Your task to perform on an android device: uninstall "Clock" Image 0: 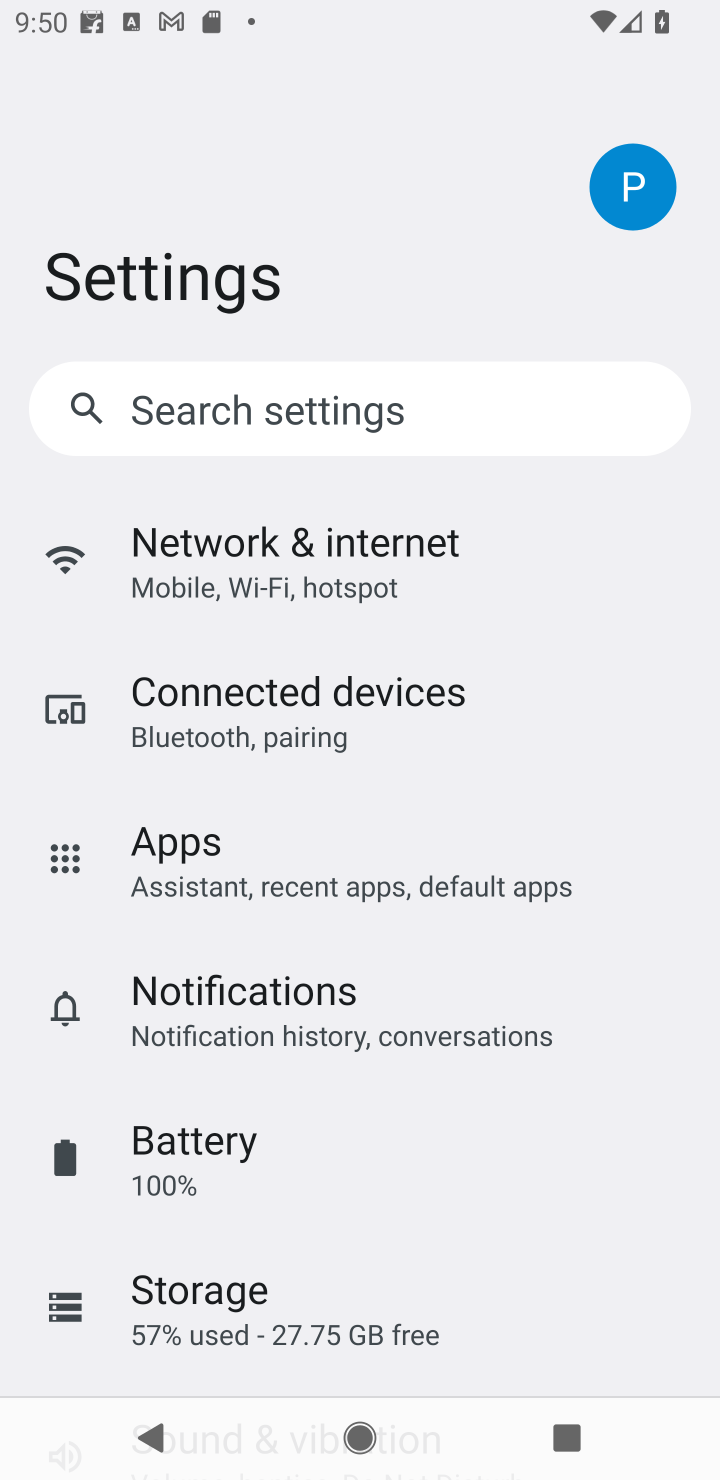
Step 0: press home button
Your task to perform on an android device: uninstall "Clock" Image 1: 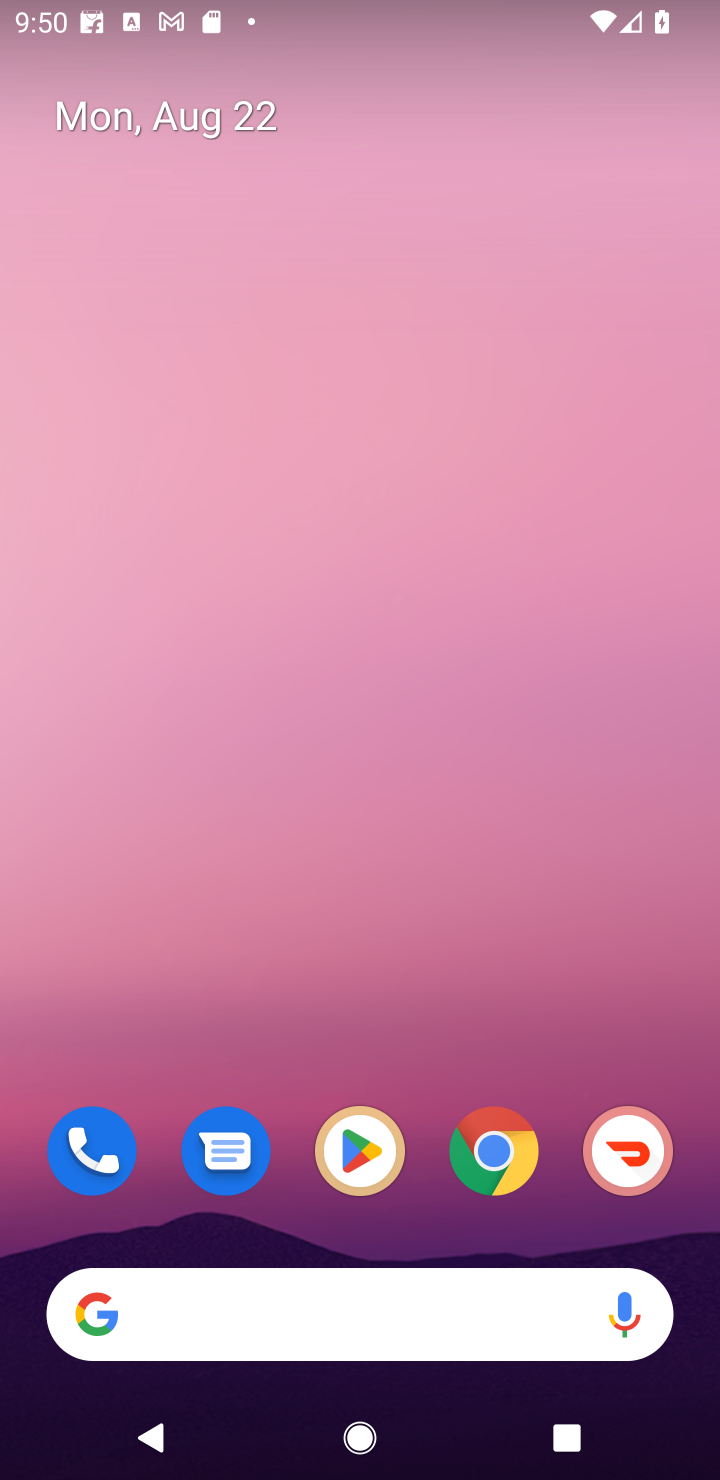
Step 1: click (347, 1143)
Your task to perform on an android device: uninstall "Clock" Image 2: 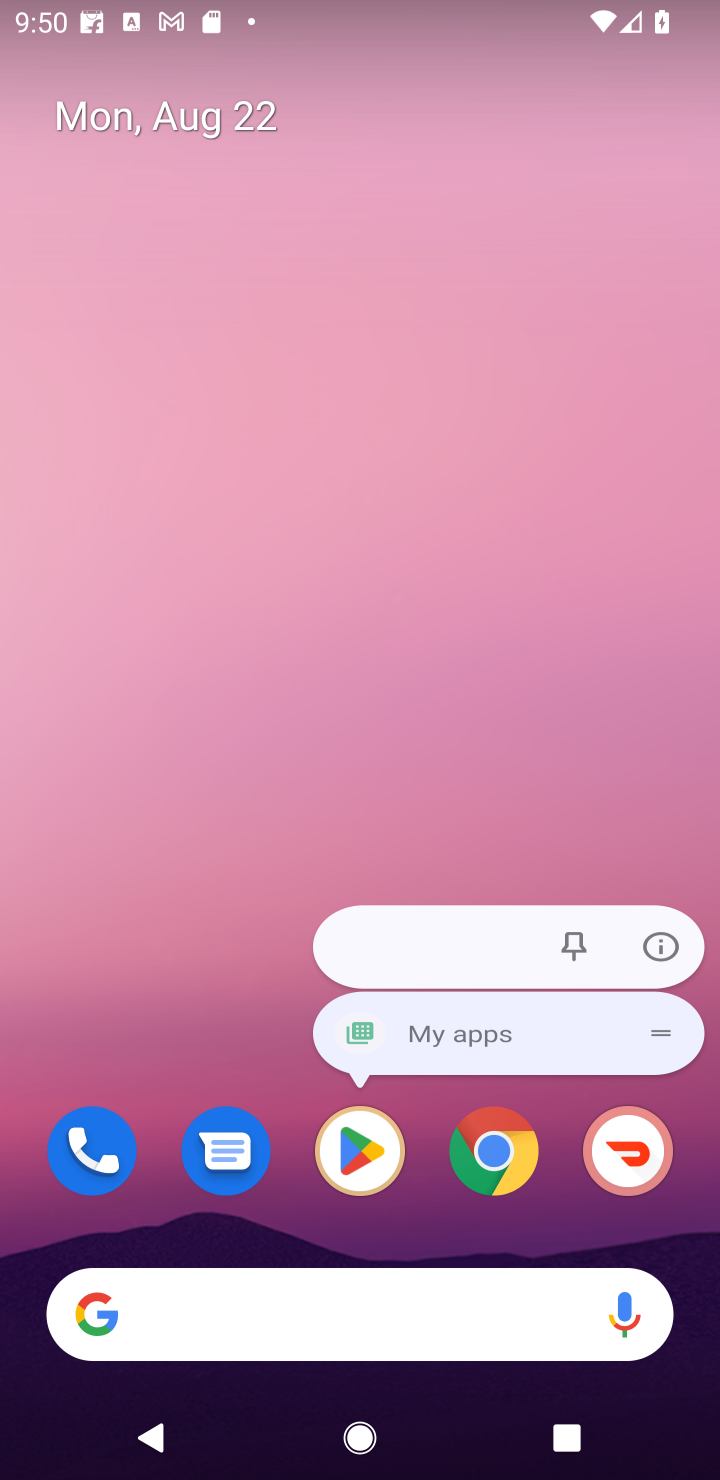
Step 2: click (347, 1145)
Your task to perform on an android device: uninstall "Clock" Image 3: 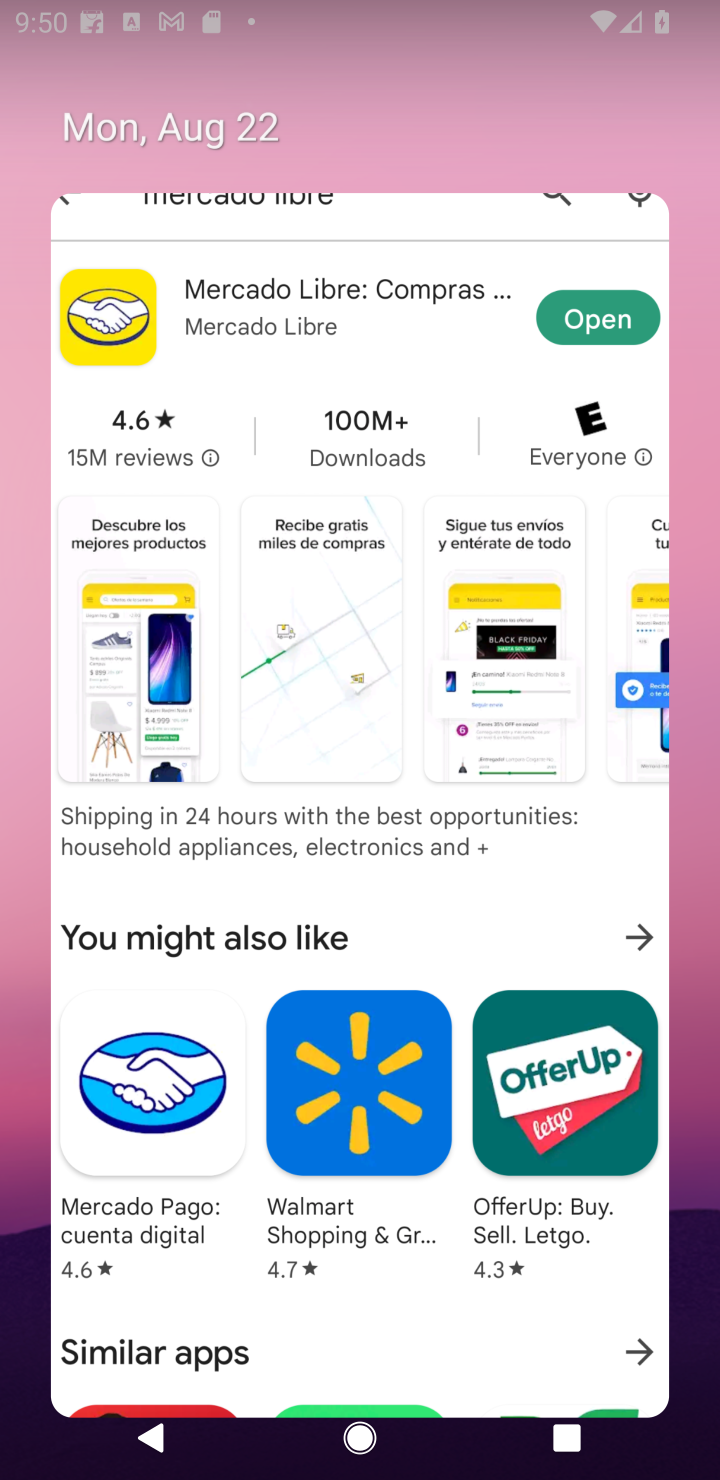
Step 3: click (347, 1145)
Your task to perform on an android device: uninstall "Clock" Image 4: 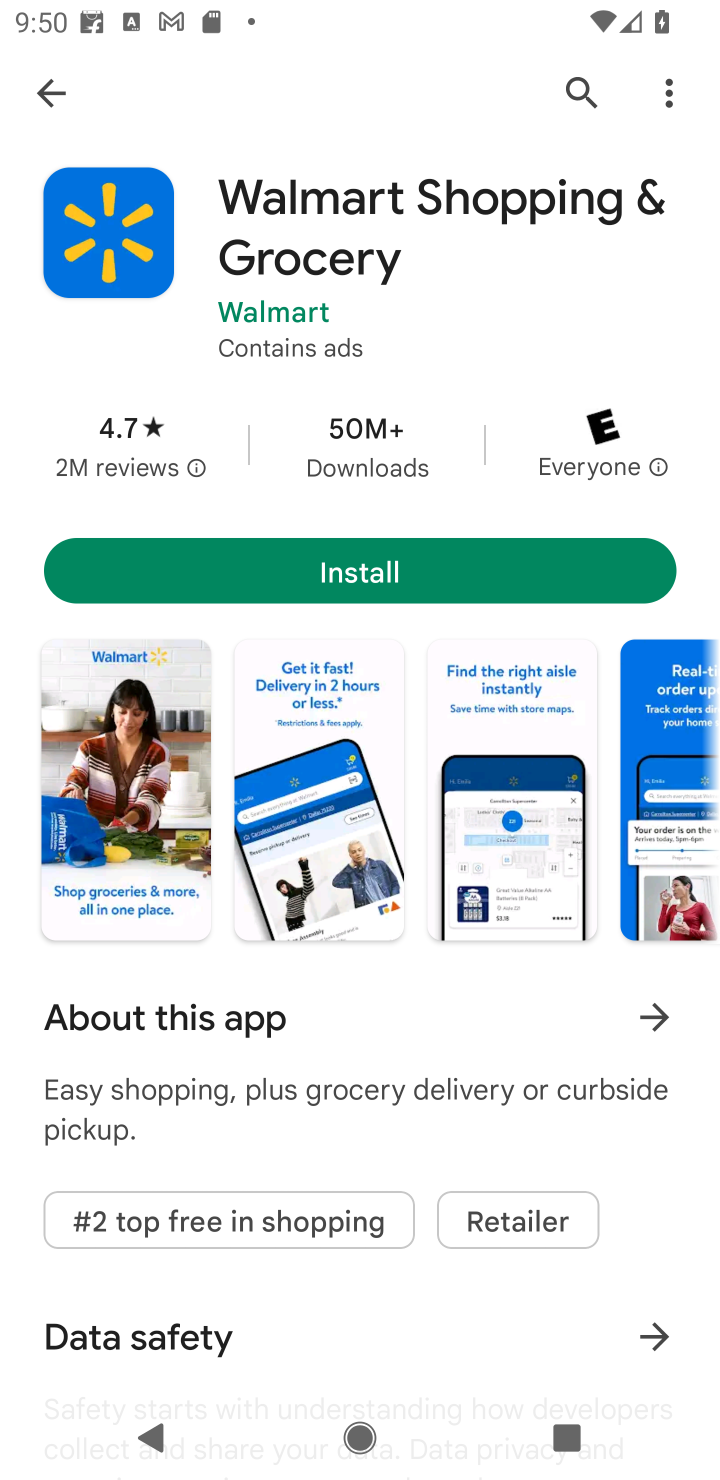
Step 4: click (577, 79)
Your task to perform on an android device: uninstall "Clock" Image 5: 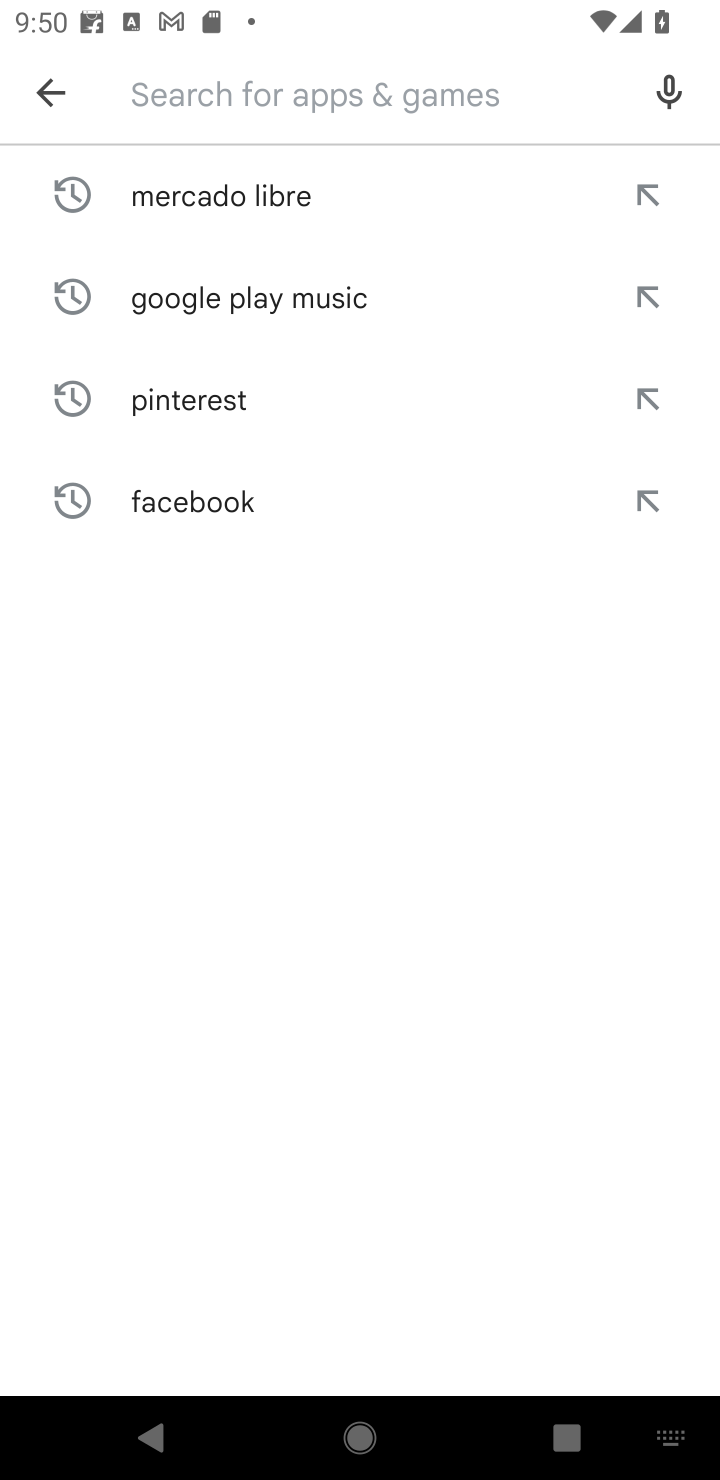
Step 5: type "Clock"
Your task to perform on an android device: uninstall "Clock" Image 6: 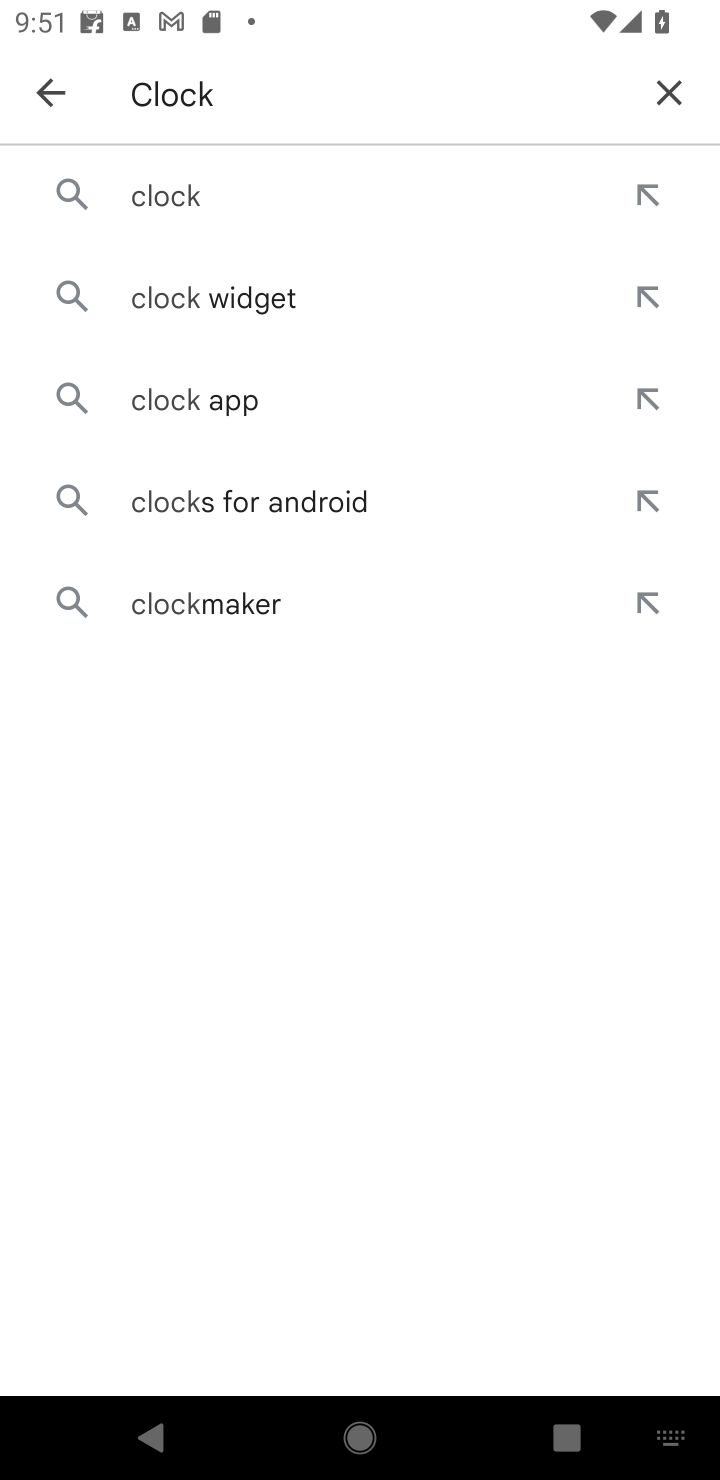
Step 6: click (186, 183)
Your task to perform on an android device: uninstall "Clock" Image 7: 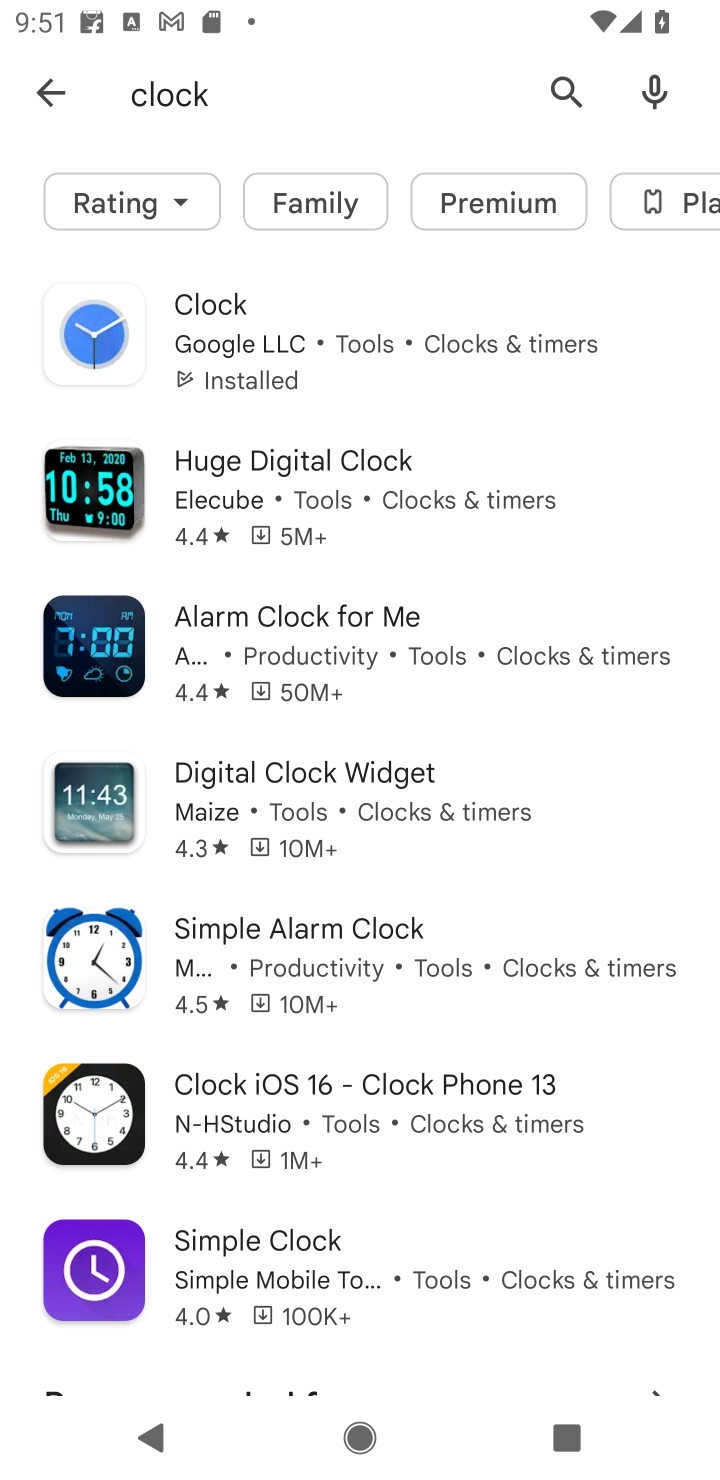
Step 7: click (250, 350)
Your task to perform on an android device: uninstall "Clock" Image 8: 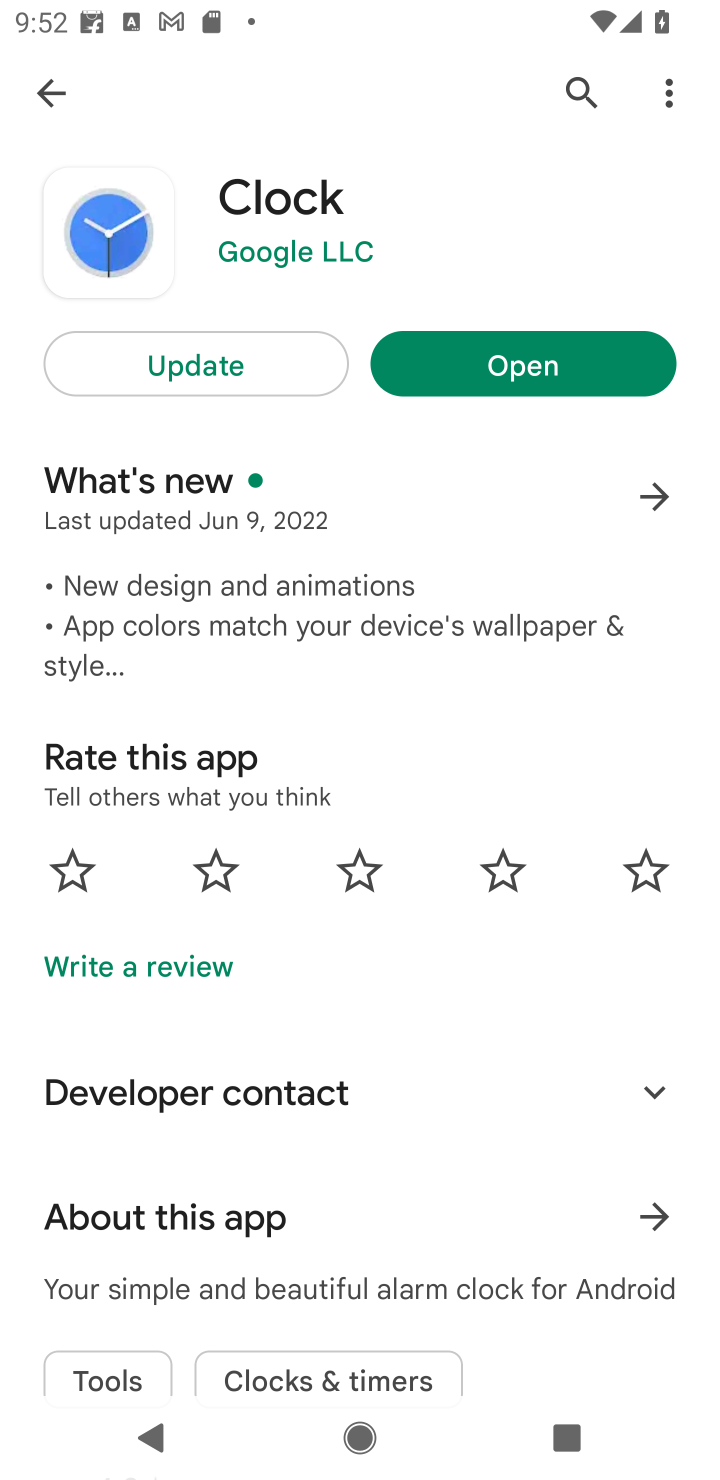
Step 8: task complete